Your task to perform on an android device: check the backup settings in the google photos Image 0: 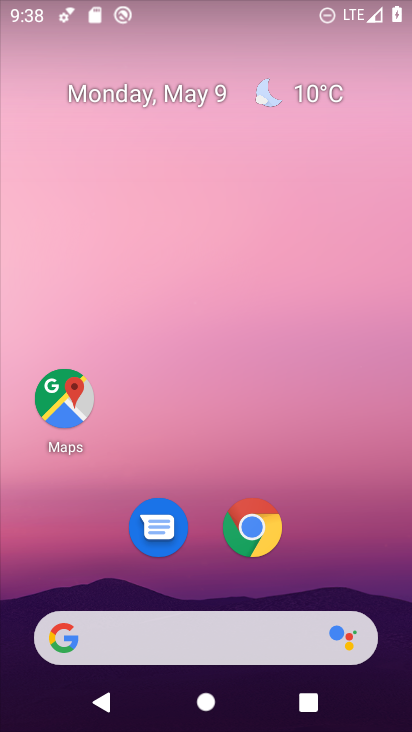
Step 0: drag from (207, 573) to (228, 165)
Your task to perform on an android device: check the backup settings in the google photos Image 1: 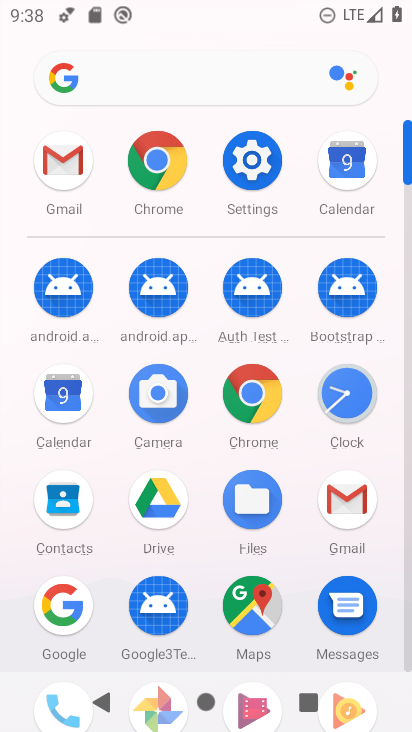
Step 1: drag from (195, 545) to (208, 241)
Your task to perform on an android device: check the backup settings in the google photos Image 2: 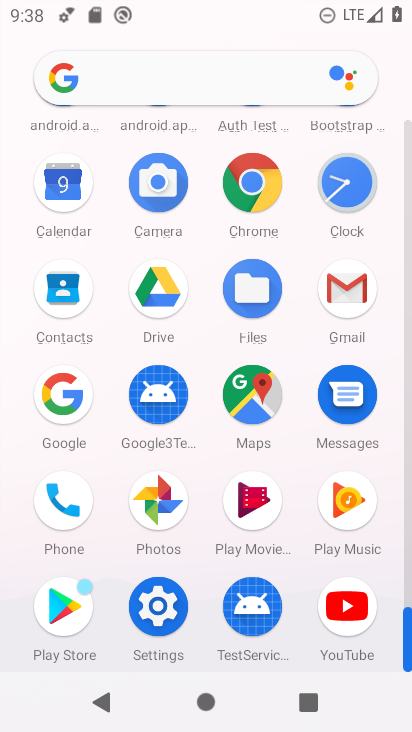
Step 2: click (155, 504)
Your task to perform on an android device: check the backup settings in the google photos Image 3: 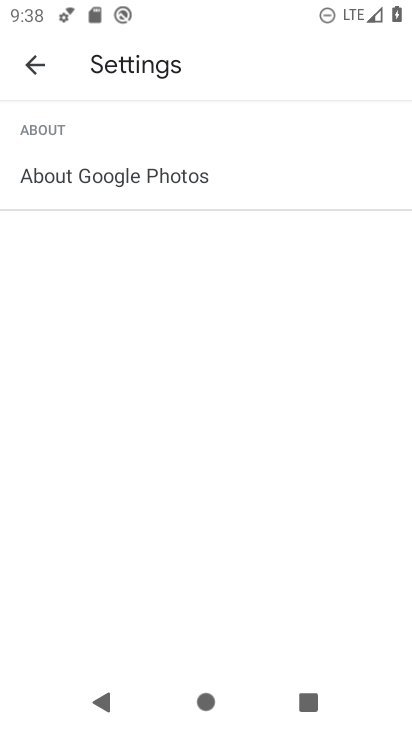
Step 3: click (46, 60)
Your task to perform on an android device: check the backup settings in the google photos Image 4: 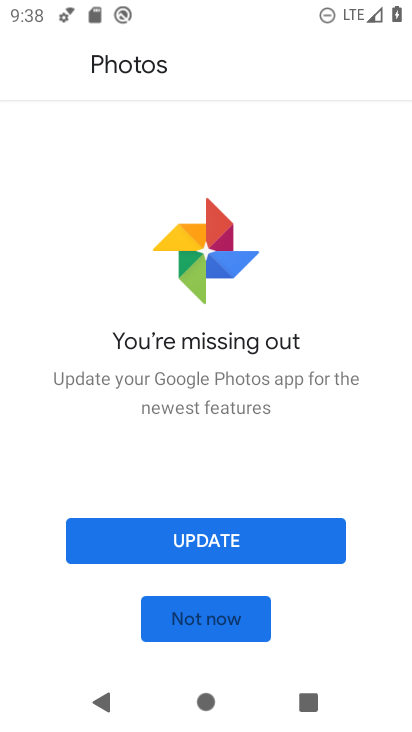
Step 4: click (177, 626)
Your task to perform on an android device: check the backup settings in the google photos Image 5: 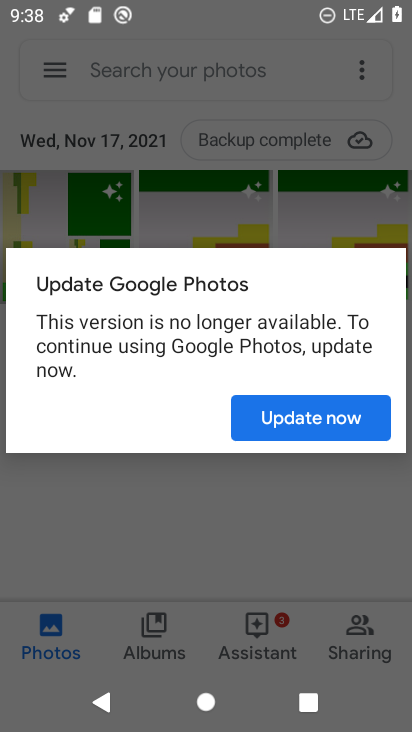
Step 5: drag from (280, 416) to (336, 416)
Your task to perform on an android device: check the backup settings in the google photos Image 6: 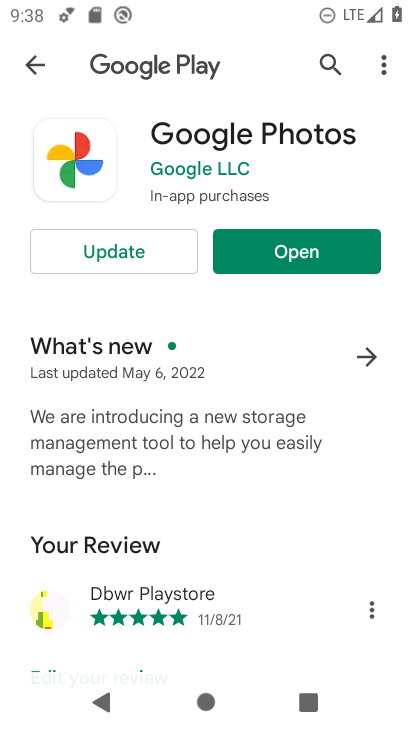
Step 6: click (269, 242)
Your task to perform on an android device: check the backup settings in the google photos Image 7: 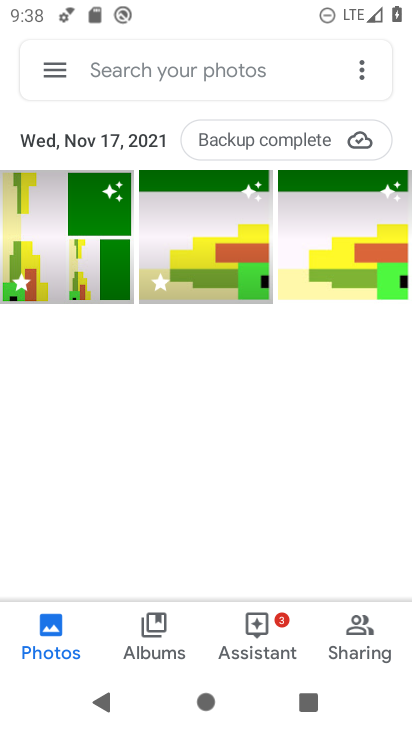
Step 7: click (51, 70)
Your task to perform on an android device: check the backup settings in the google photos Image 8: 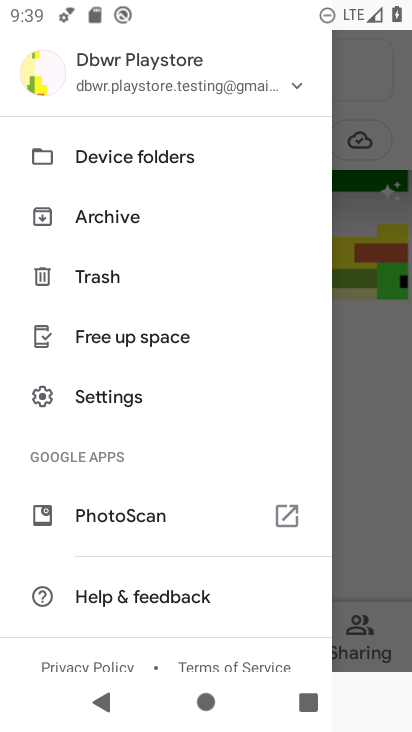
Step 8: click (116, 414)
Your task to perform on an android device: check the backup settings in the google photos Image 9: 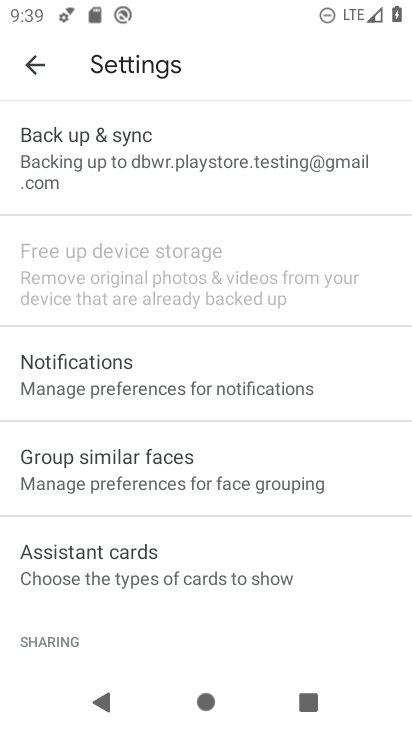
Step 9: click (179, 175)
Your task to perform on an android device: check the backup settings in the google photos Image 10: 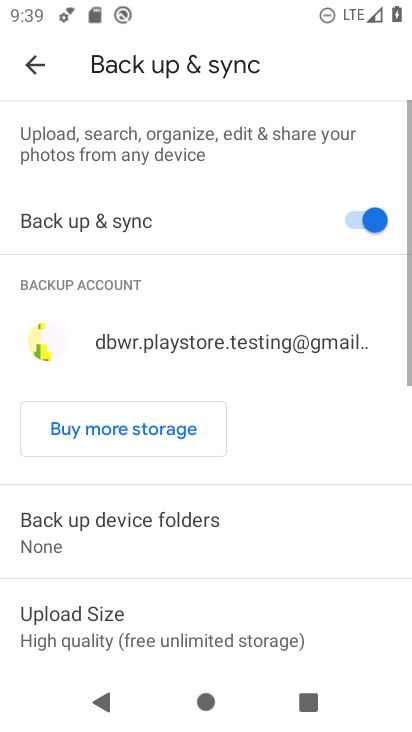
Step 10: task complete